Your task to perform on an android device: find photos in the google photos app Image 0: 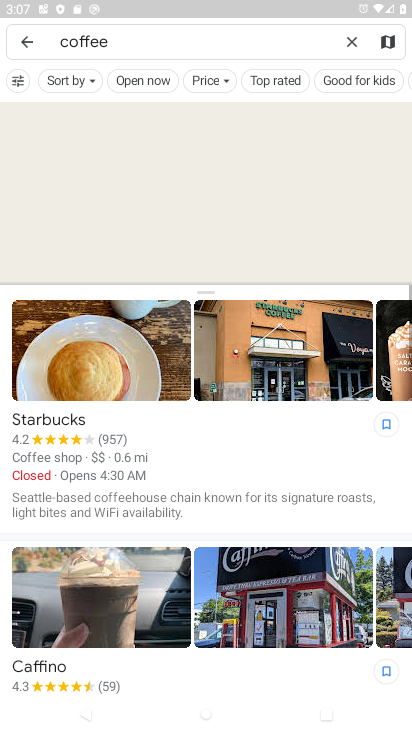
Step 0: press home button
Your task to perform on an android device: find photos in the google photos app Image 1: 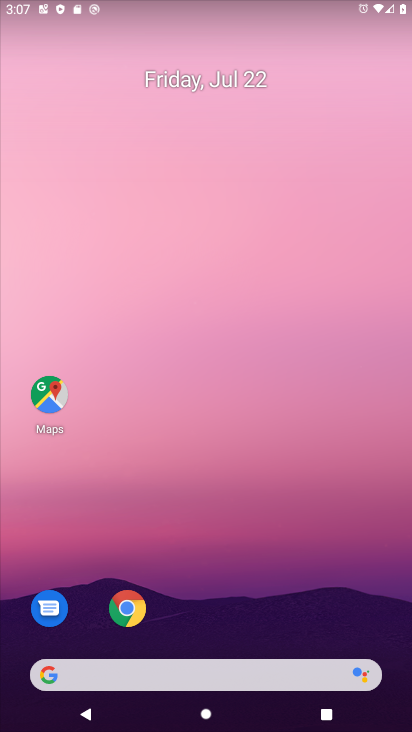
Step 1: drag from (269, 605) to (223, 180)
Your task to perform on an android device: find photos in the google photos app Image 2: 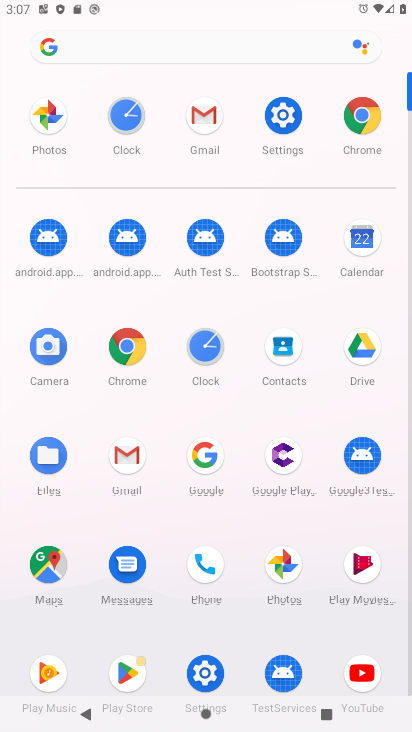
Step 2: click (286, 554)
Your task to perform on an android device: find photos in the google photos app Image 3: 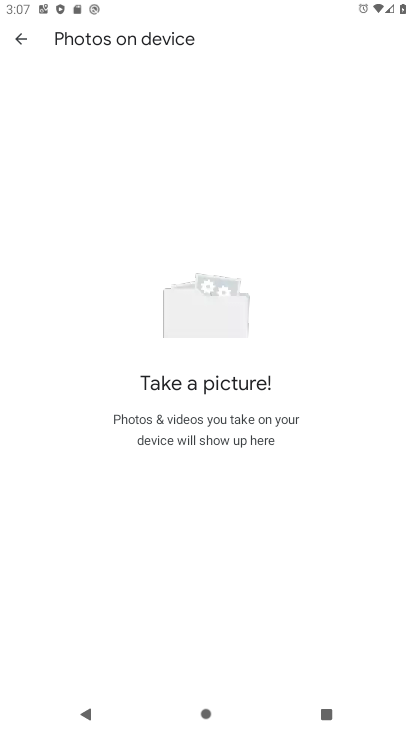
Step 3: click (24, 40)
Your task to perform on an android device: find photos in the google photos app Image 4: 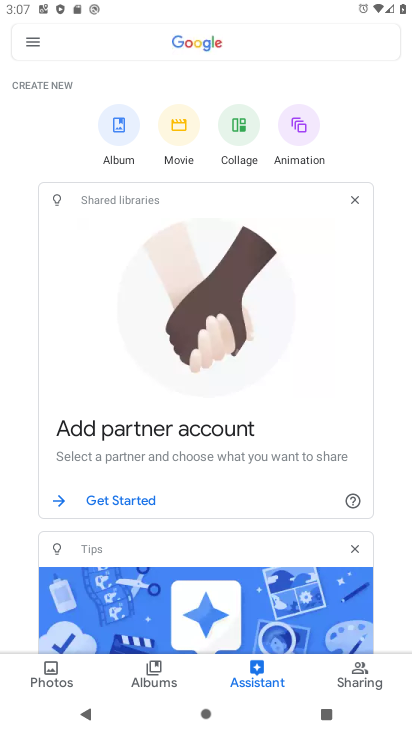
Step 4: click (19, 26)
Your task to perform on an android device: find photos in the google photos app Image 5: 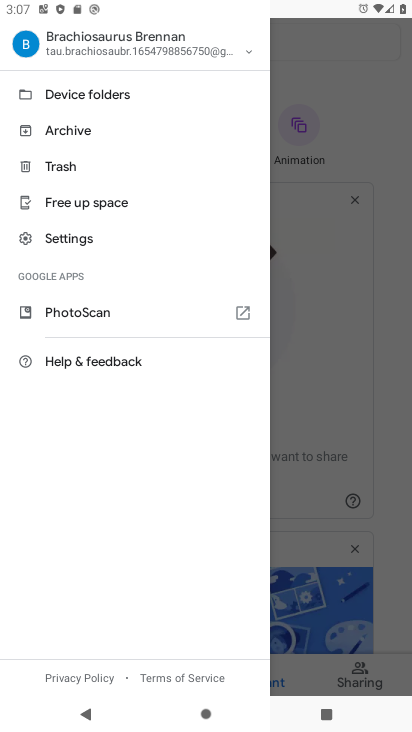
Step 5: click (310, 217)
Your task to perform on an android device: find photos in the google photos app Image 6: 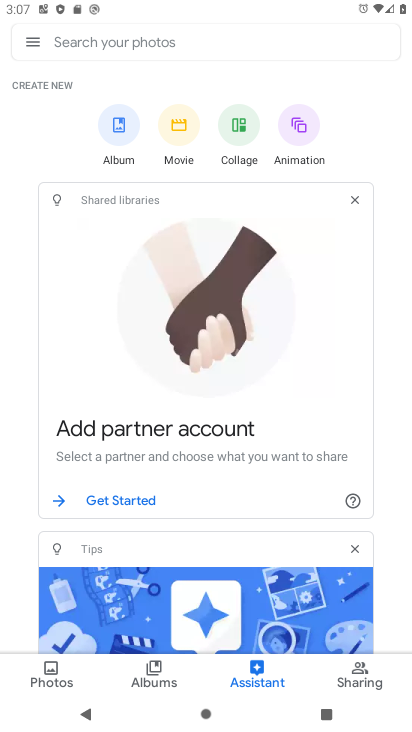
Step 6: task complete